Your task to perform on an android device: Go to Yahoo.com Image 0: 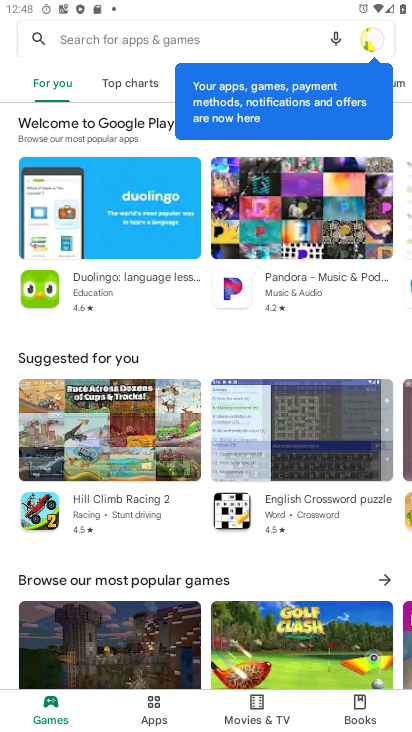
Step 0: press home button
Your task to perform on an android device: Go to Yahoo.com Image 1: 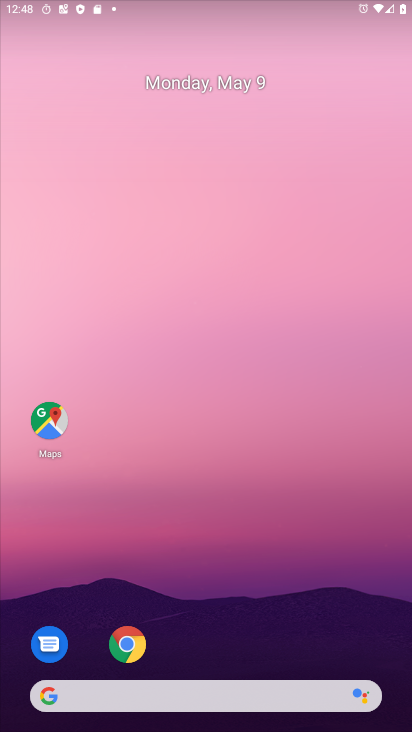
Step 1: drag from (309, 600) to (97, 83)
Your task to perform on an android device: Go to Yahoo.com Image 2: 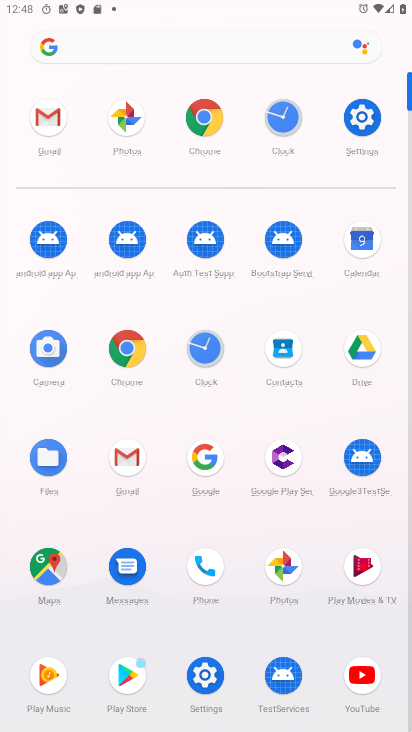
Step 2: click (213, 127)
Your task to perform on an android device: Go to Yahoo.com Image 3: 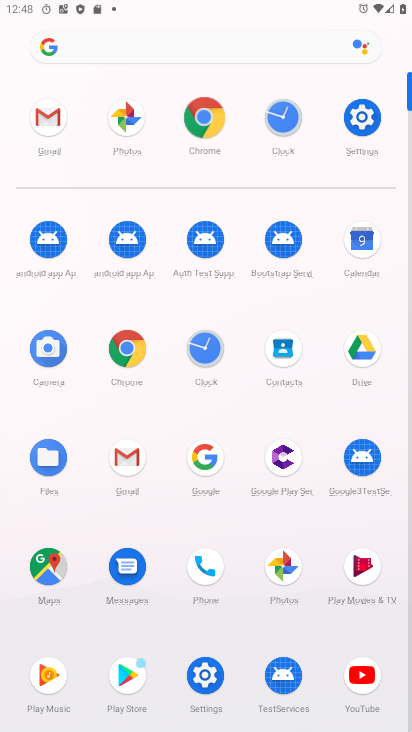
Step 3: click (213, 127)
Your task to perform on an android device: Go to Yahoo.com Image 4: 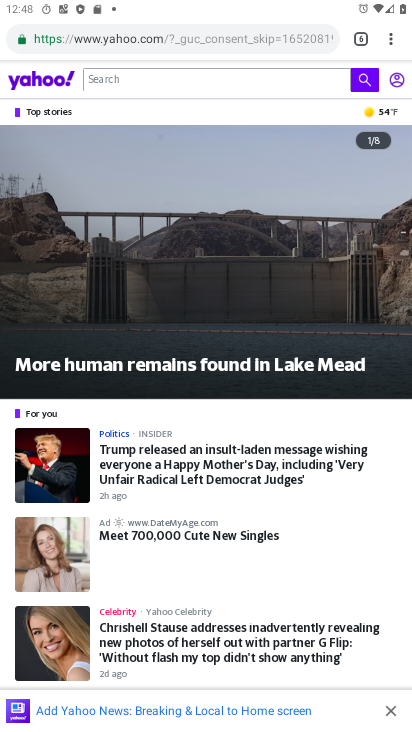
Step 4: task complete